Your task to perform on an android device: Go to wifi settings Image 0: 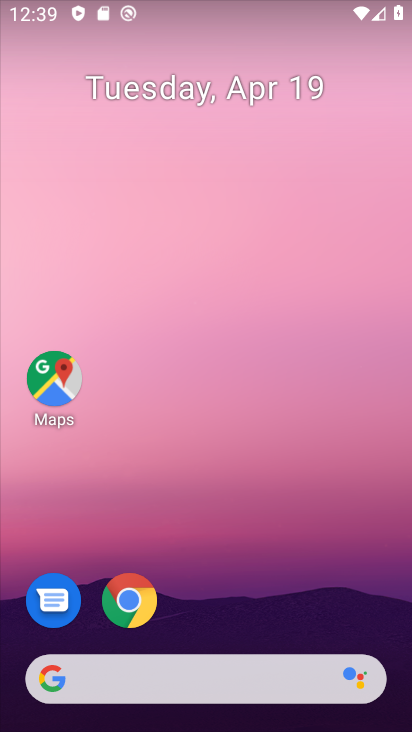
Step 0: drag from (217, 642) to (108, 41)
Your task to perform on an android device: Go to wifi settings Image 1: 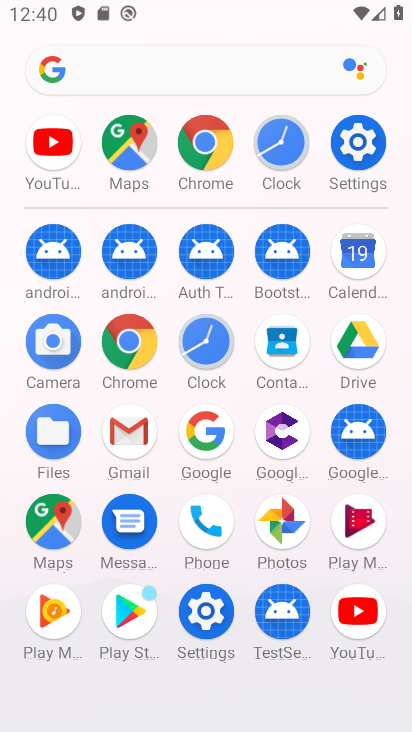
Step 1: click (366, 146)
Your task to perform on an android device: Go to wifi settings Image 2: 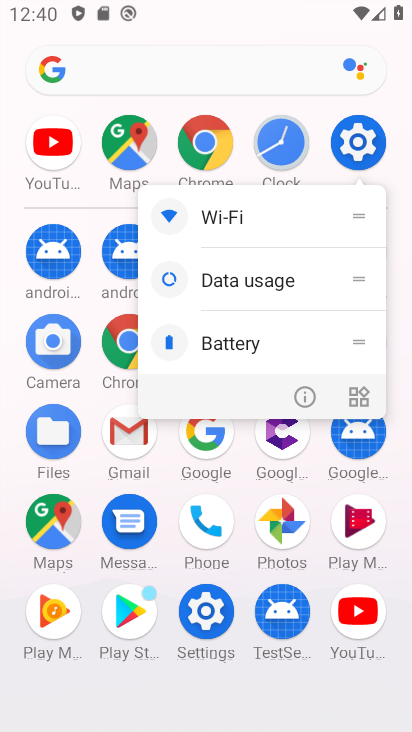
Step 2: drag from (366, 146) to (275, 213)
Your task to perform on an android device: Go to wifi settings Image 3: 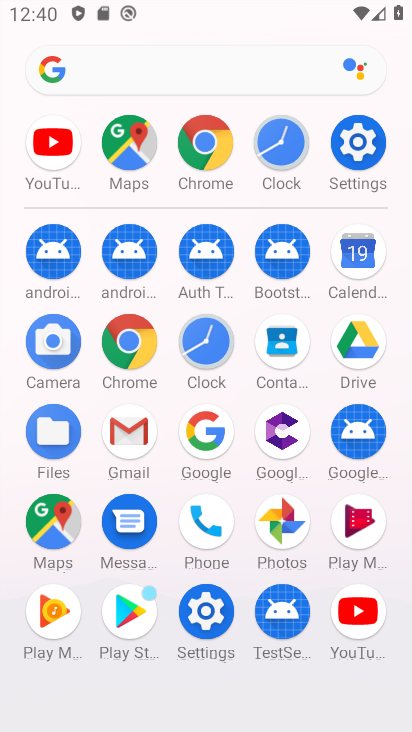
Step 3: drag from (279, 209) to (340, 179)
Your task to perform on an android device: Go to wifi settings Image 4: 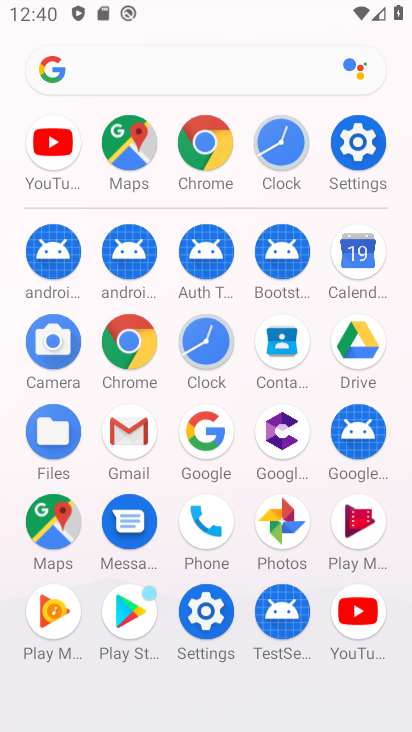
Step 4: click (340, 179)
Your task to perform on an android device: Go to wifi settings Image 5: 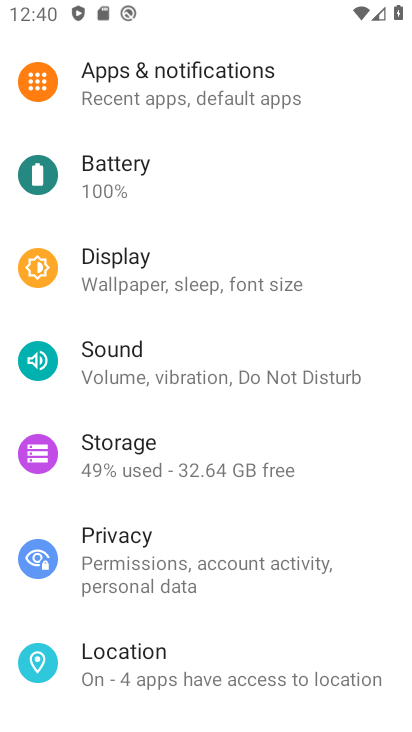
Step 5: drag from (340, 179) to (233, 146)
Your task to perform on an android device: Go to wifi settings Image 6: 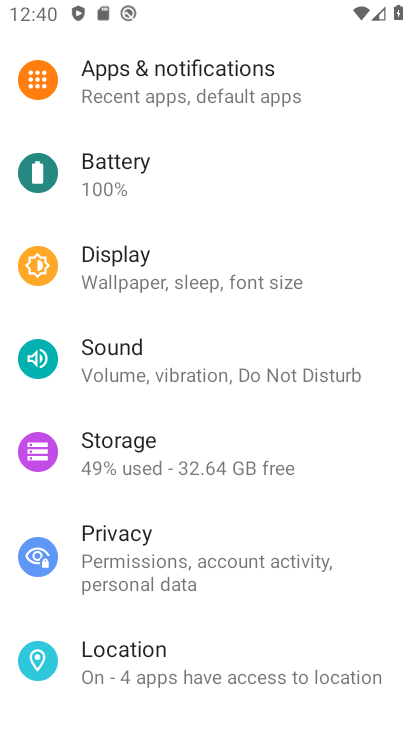
Step 6: drag from (215, 126) to (211, 728)
Your task to perform on an android device: Go to wifi settings Image 7: 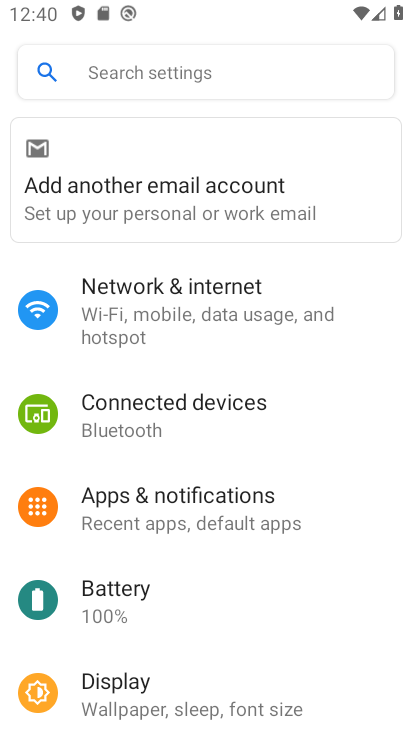
Step 7: click (221, 289)
Your task to perform on an android device: Go to wifi settings Image 8: 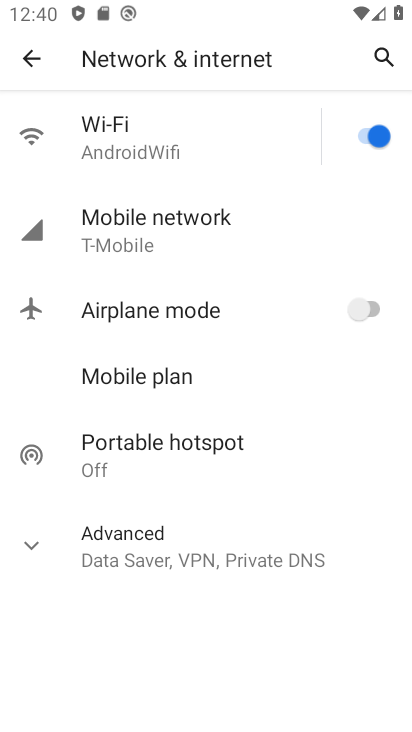
Step 8: click (133, 148)
Your task to perform on an android device: Go to wifi settings Image 9: 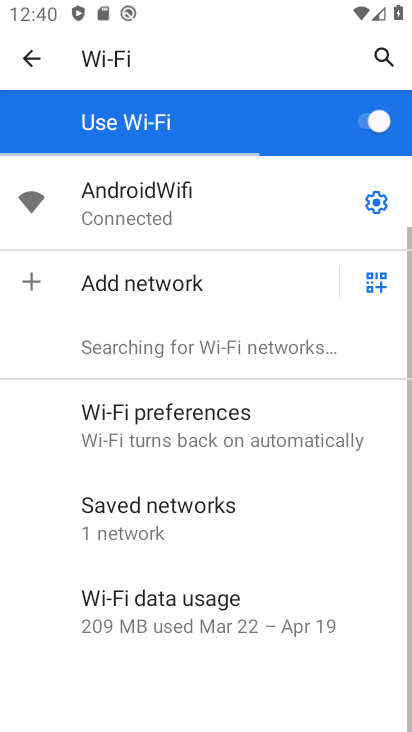
Step 9: task complete